Your task to perform on an android device: Turn off the flashlight Image 0: 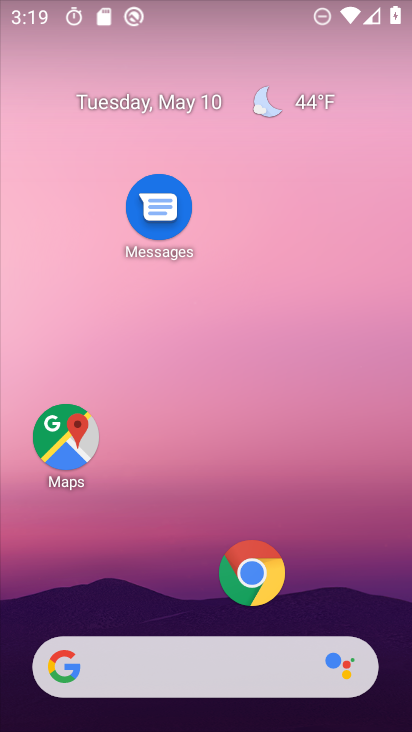
Step 0: drag from (170, 563) to (284, 168)
Your task to perform on an android device: Turn off the flashlight Image 1: 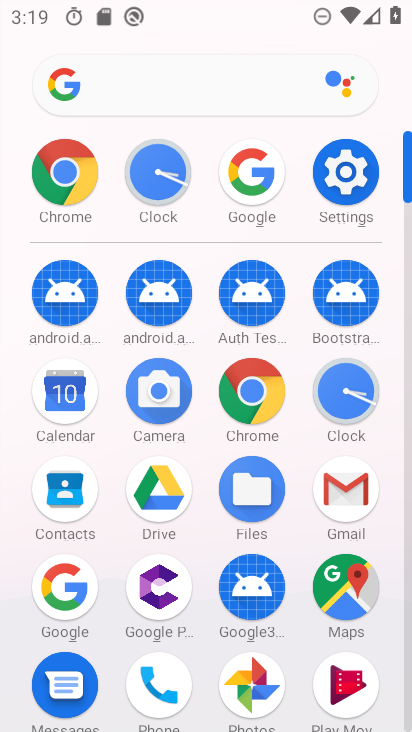
Step 1: click (344, 165)
Your task to perform on an android device: Turn off the flashlight Image 2: 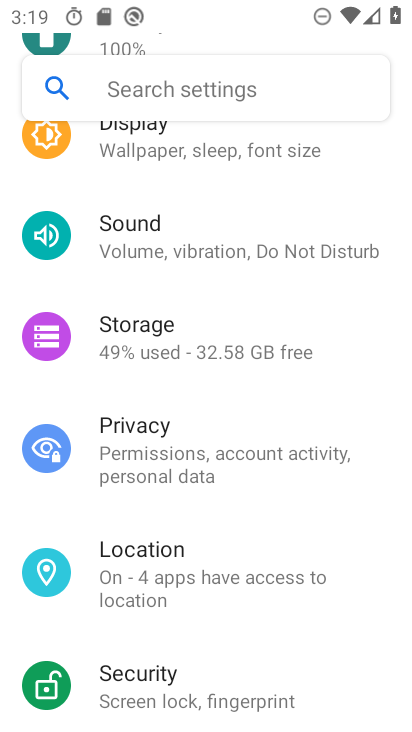
Step 2: drag from (236, 223) to (237, 510)
Your task to perform on an android device: Turn off the flashlight Image 3: 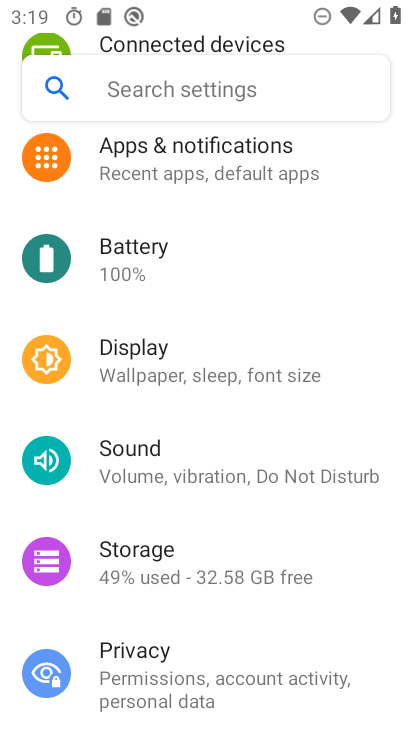
Step 3: drag from (203, 205) to (238, 408)
Your task to perform on an android device: Turn off the flashlight Image 4: 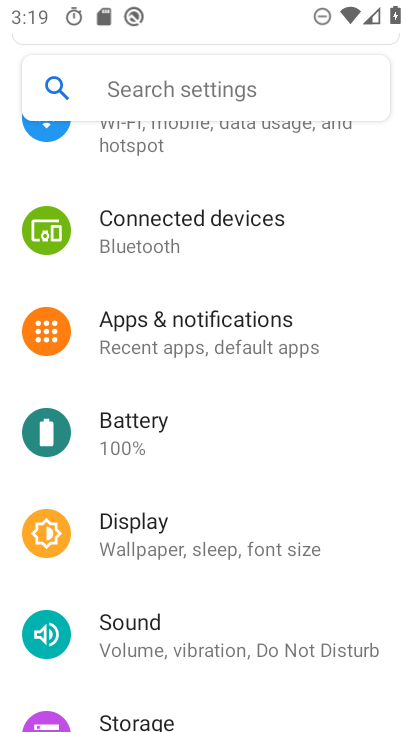
Step 4: click (206, 324)
Your task to perform on an android device: Turn off the flashlight Image 5: 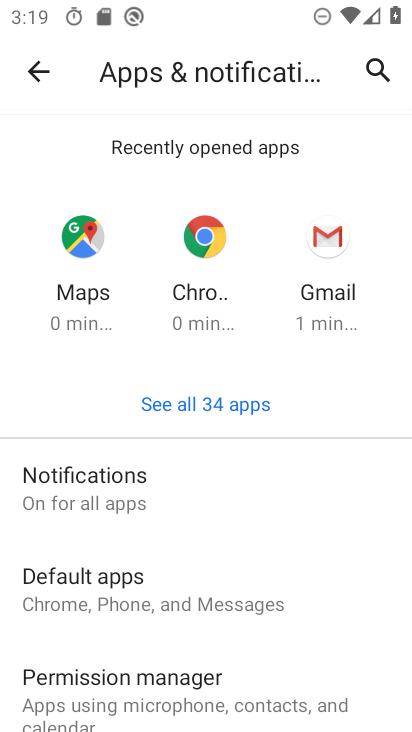
Step 5: task complete